Your task to perform on an android device: Open notification settings Image 0: 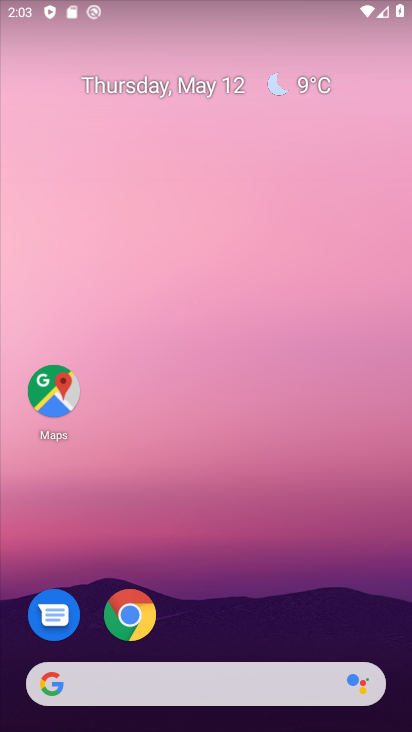
Step 0: drag from (217, 670) to (84, 19)
Your task to perform on an android device: Open notification settings Image 1: 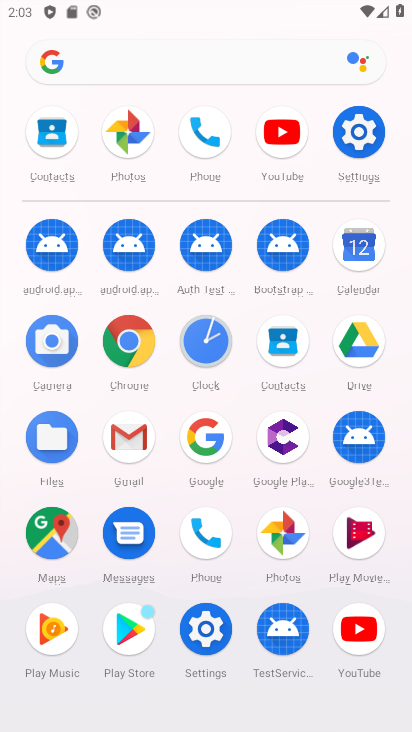
Step 1: click (201, 640)
Your task to perform on an android device: Open notification settings Image 2: 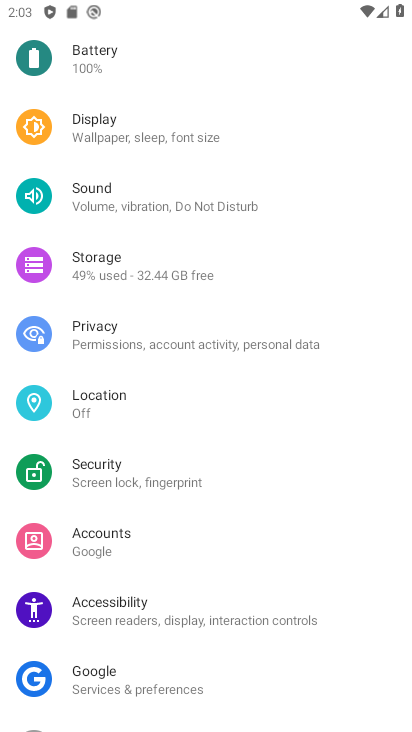
Step 2: drag from (123, 243) to (196, 690)
Your task to perform on an android device: Open notification settings Image 3: 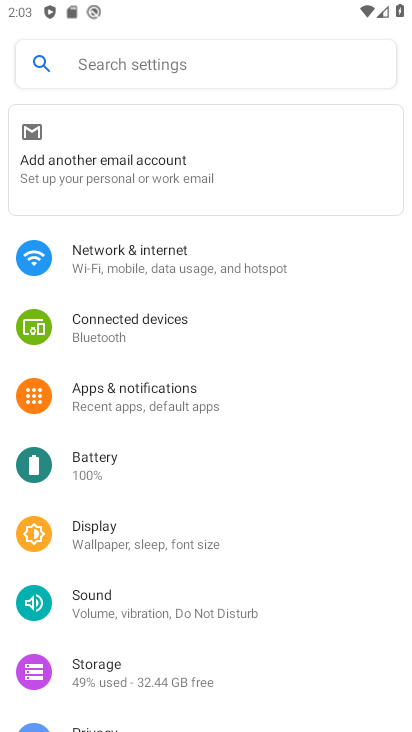
Step 3: click (124, 390)
Your task to perform on an android device: Open notification settings Image 4: 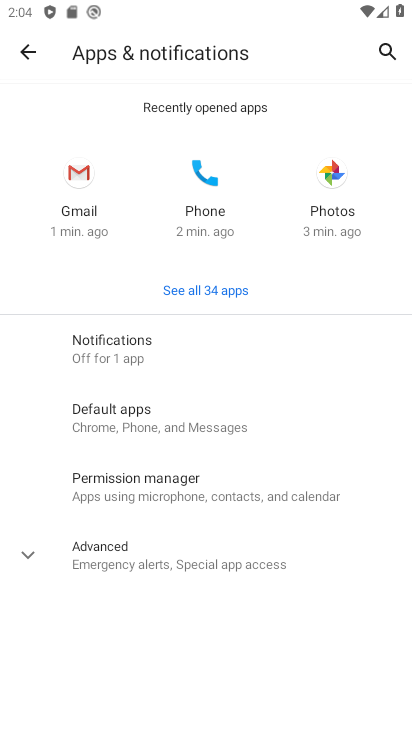
Step 4: task complete